Your task to perform on an android device: Open the calendar and show me this week's events? Image 0: 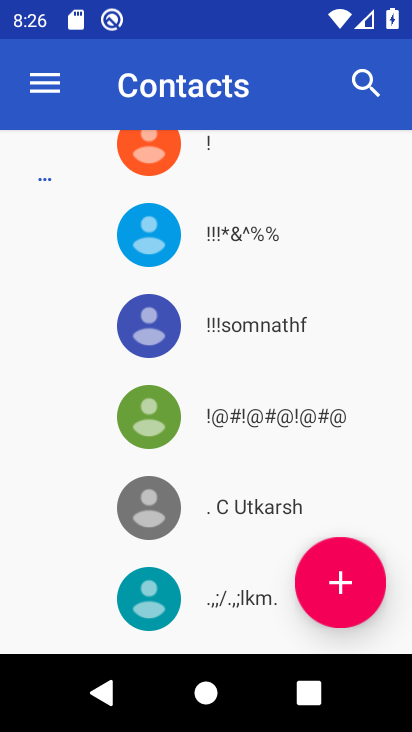
Step 0: press home button
Your task to perform on an android device: Open the calendar and show me this week's events? Image 1: 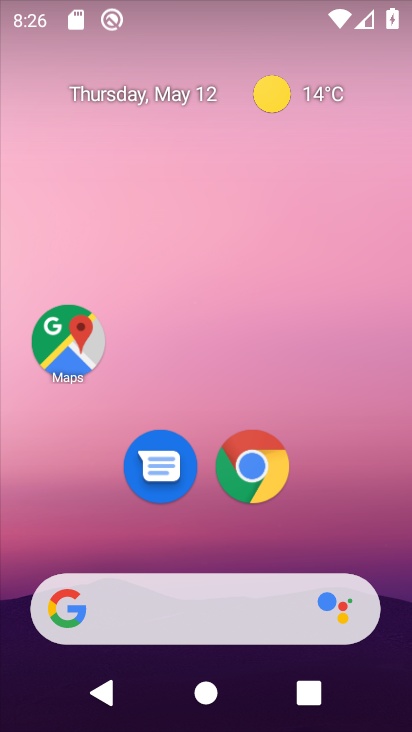
Step 1: drag from (205, 537) to (245, 30)
Your task to perform on an android device: Open the calendar and show me this week's events? Image 2: 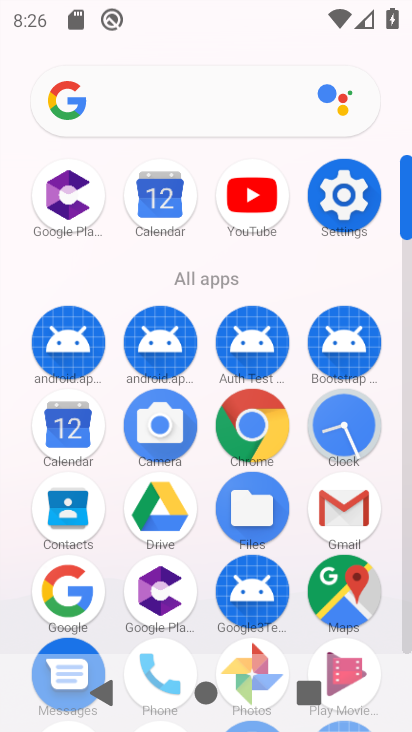
Step 2: click (67, 421)
Your task to perform on an android device: Open the calendar and show me this week's events? Image 3: 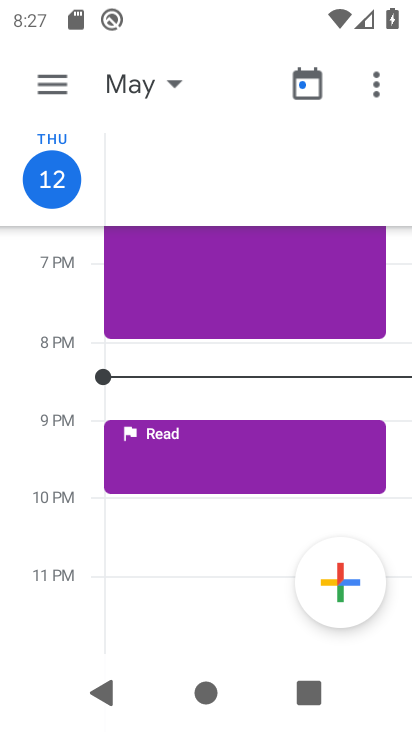
Step 3: click (59, 75)
Your task to perform on an android device: Open the calendar and show me this week's events? Image 4: 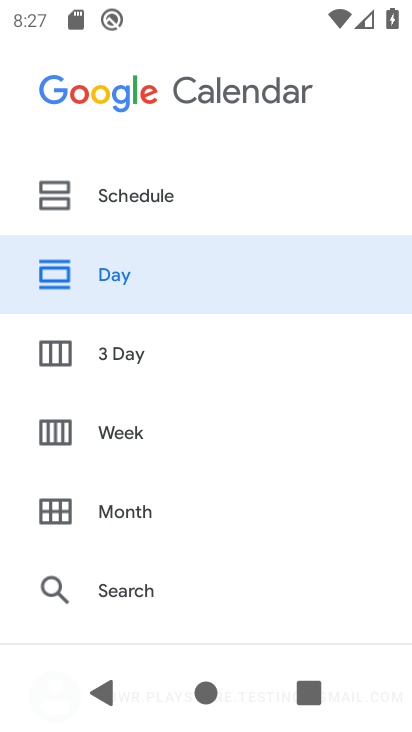
Step 4: click (82, 424)
Your task to perform on an android device: Open the calendar and show me this week's events? Image 5: 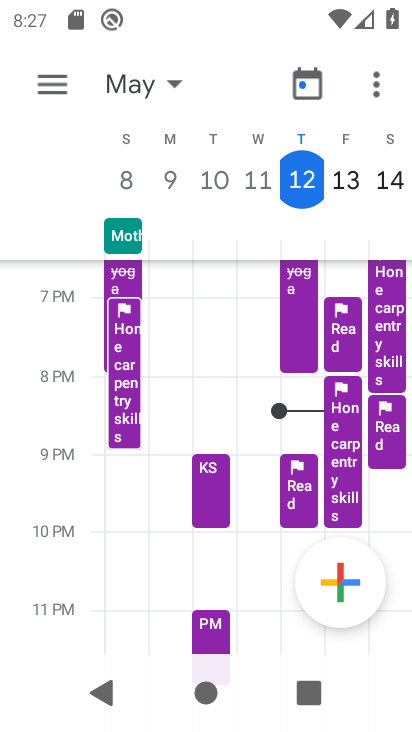
Step 5: click (51, 89)
Your task to perform on an android device: Open the calendar and show me this week's events? Image 6: 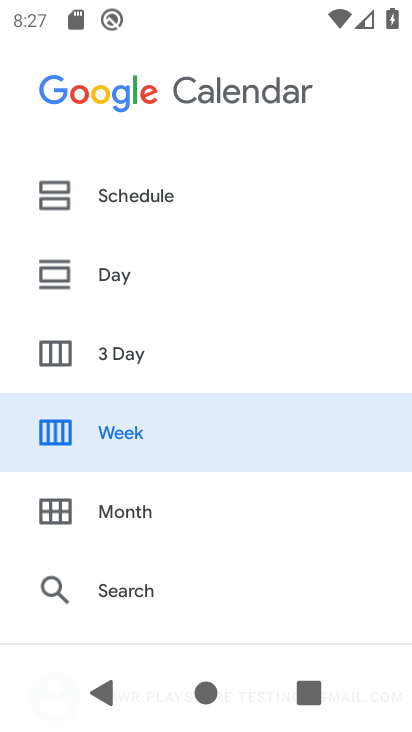
Step 6: drag from (72, 553) to (78, 188)
Your task to perform on an android device: Open the calendar and show me this week's events? Image 7: 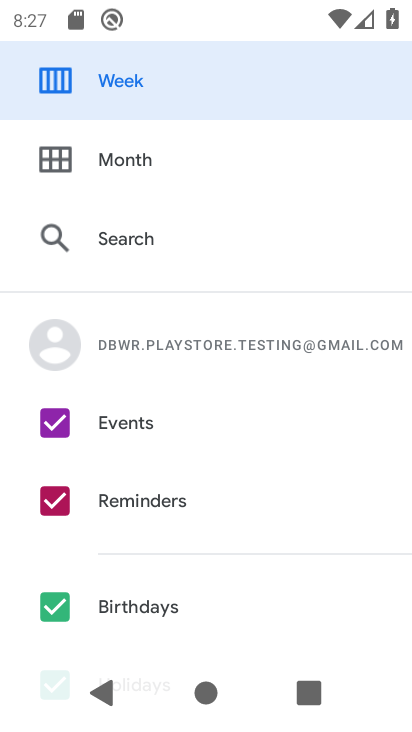
Step 7: drag from (86, 529) to (100, 244)
Your task to perform on an android device: Open the calendar and show me this week's events? Image 8: 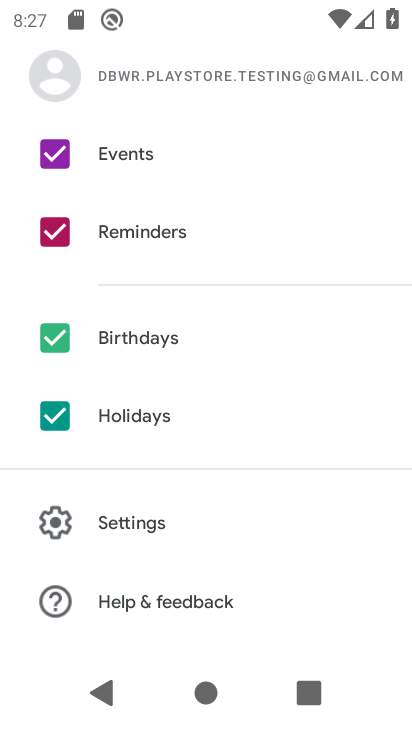
Step 8: click (49, 226)
Your task to perform on an android device: Open the calendar and show me this week's events? Image 9: 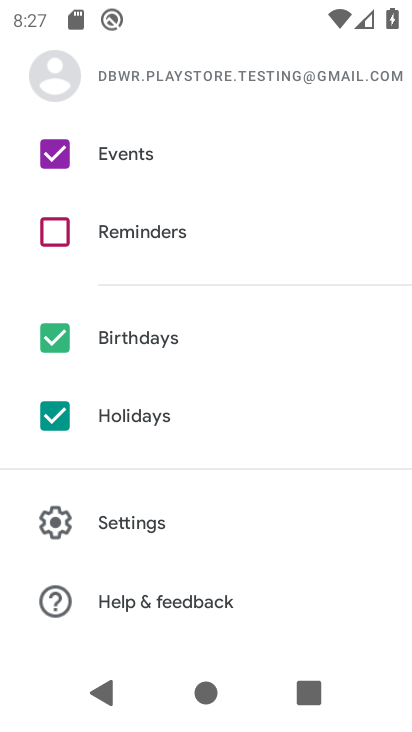
Step 9: click (49, 336)
Your task to perform on an android device: Open the calendar and show me this week's events? Image 10: 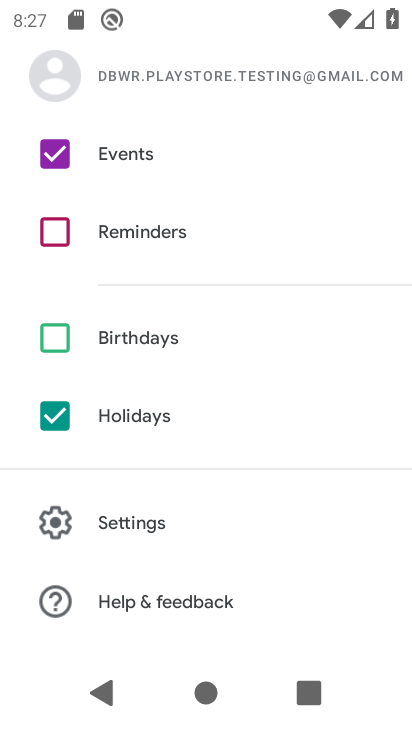
Step 10: click (50, 419)
Your task to perform on an android device: Open the calendar and show me this week's events? Image 11: 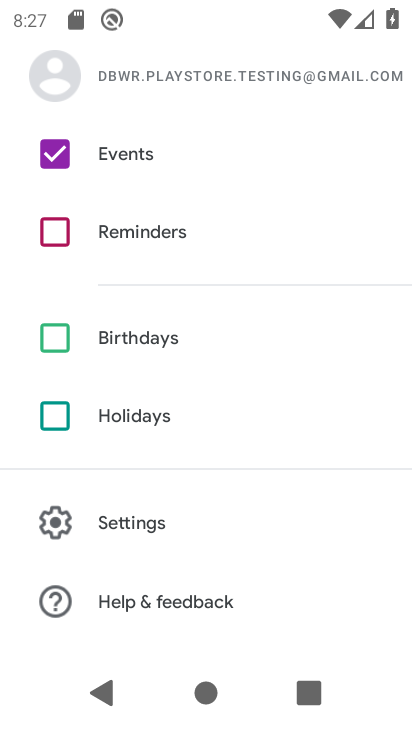
Step 11: drag from (165, 198) to (215, 634)
Your task to perform on an android device: Open the calendar and show me this week's events? Image 12: 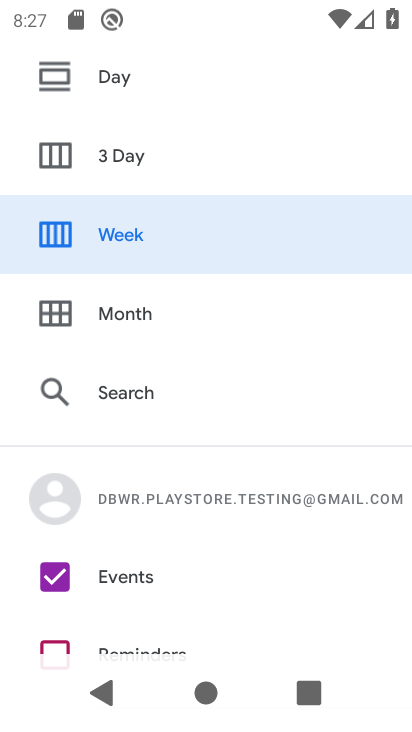
Step 12: drag from (141, 136) to (157, 593)
Your task to perform on an android device: Open the calendar and show me this week's events? Image 13: 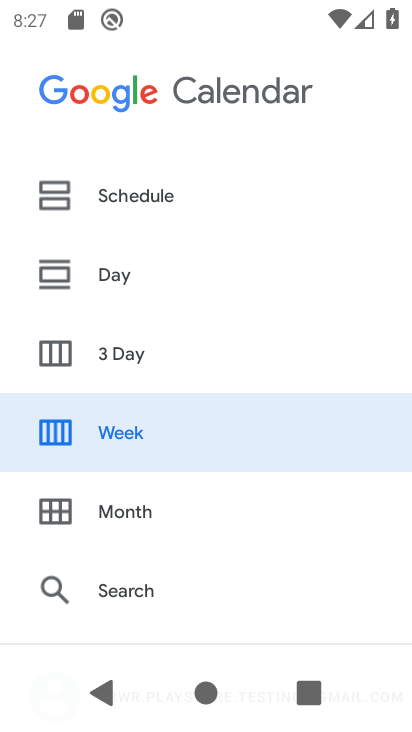
Step 13: click (82, 190)
Your task to perform on an android device: Open the calendar and show me this week's events? Image 14: 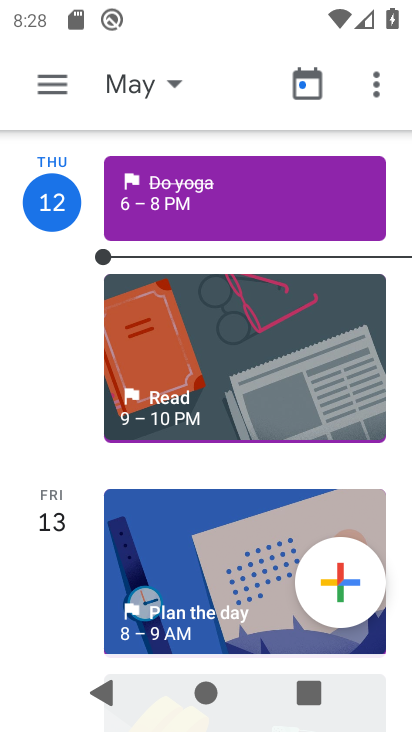
Step 14: drag from (72, 602) to (78, 280)
Your task to perform on an android device: Open the calendar and show me this week's events? Image 15: 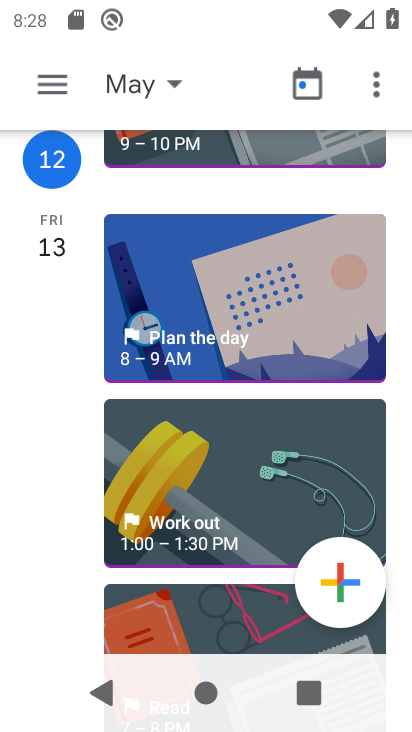
Step 15: click (79, 237)
Your task to perform on an android device: Open the calendar and show me this week's events? Image 16: 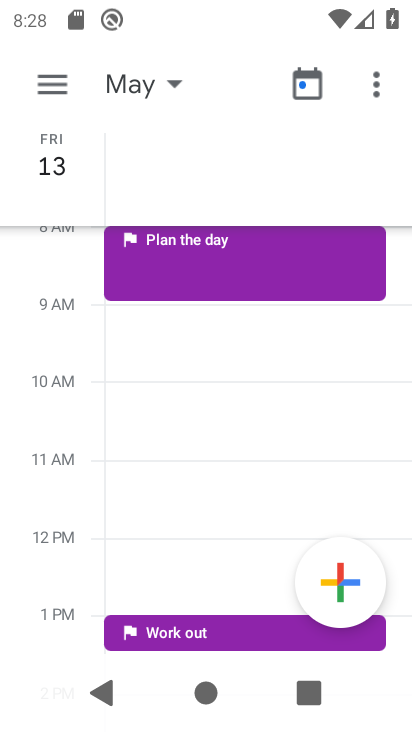
Step 16: click (72, 190)
Your task to perform on an android device: Open the calendar and show me this week's events? Image 17: 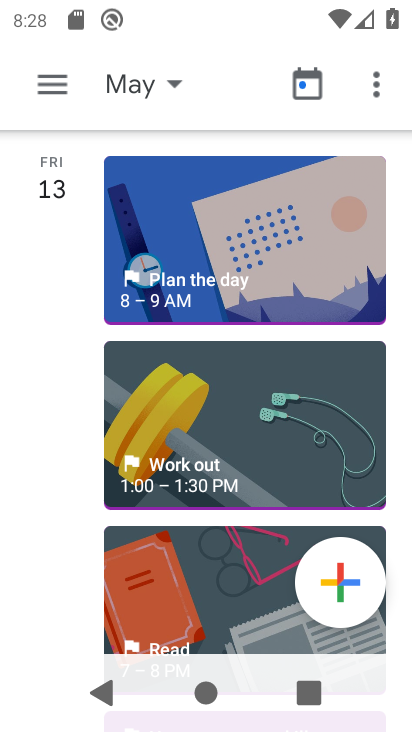
Step 17: task complete